Your task to perform on an android device: uninstall "Messenger Lite" Image 0: 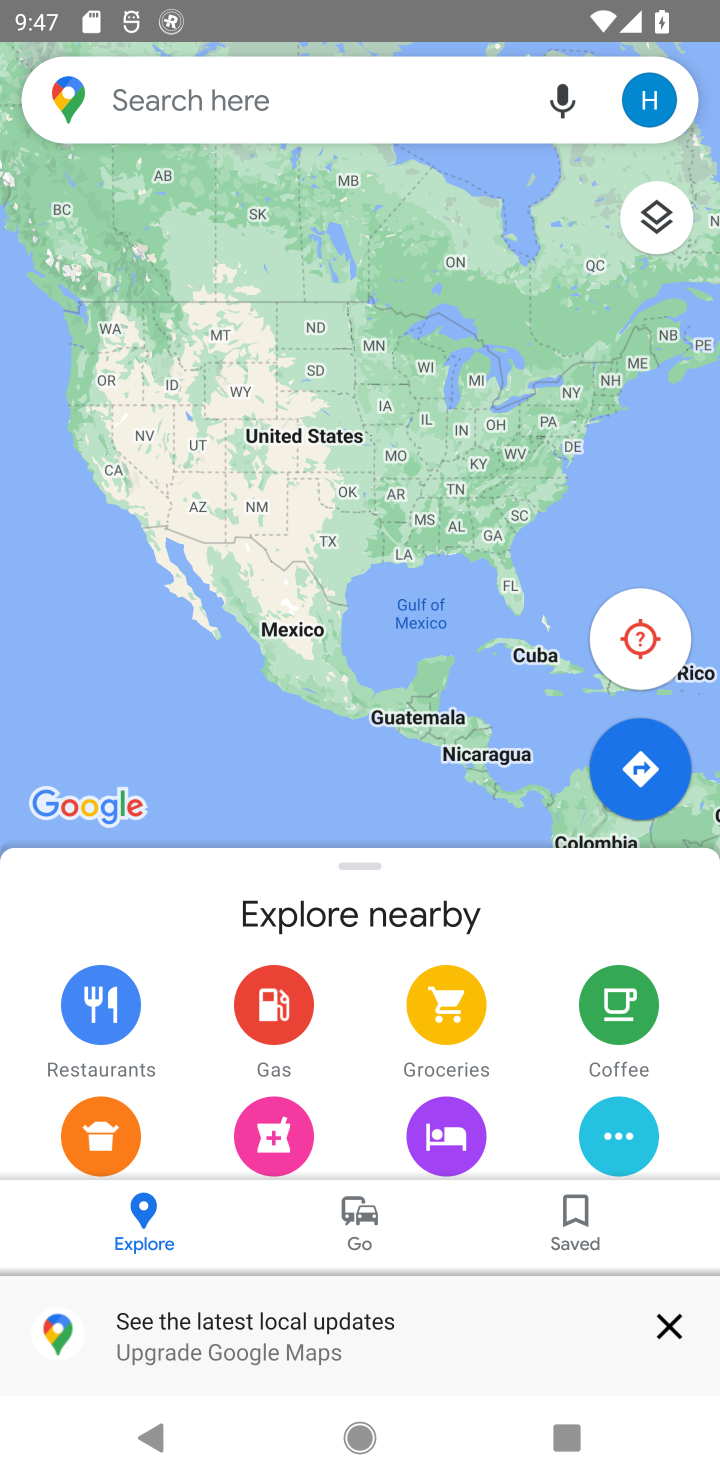
Step 0: press home button
Your task to perform on an android device: uninstall "Messenger Lite" Image 1: 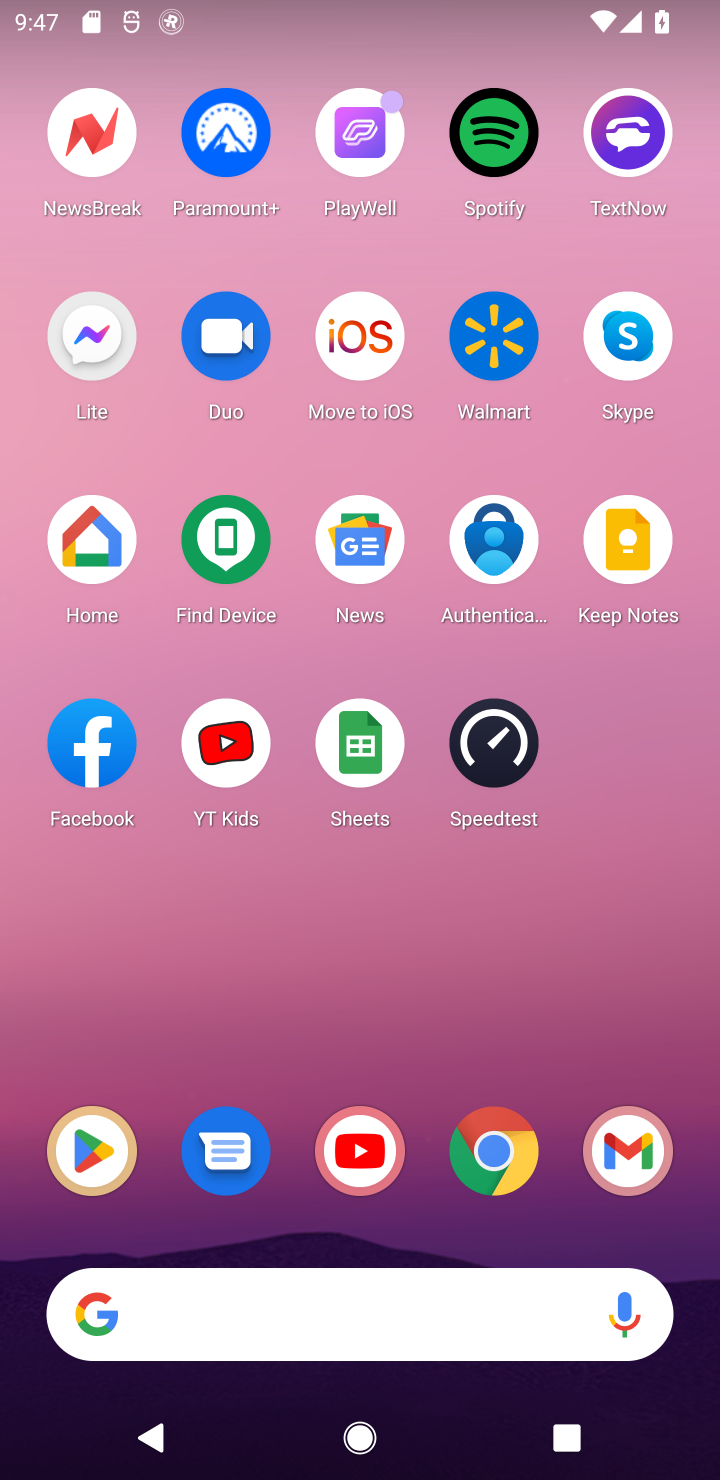
Step 1: click (3, 1144)
Your task to perform on an android device: uninstall "Messenger Lite" Image 2: 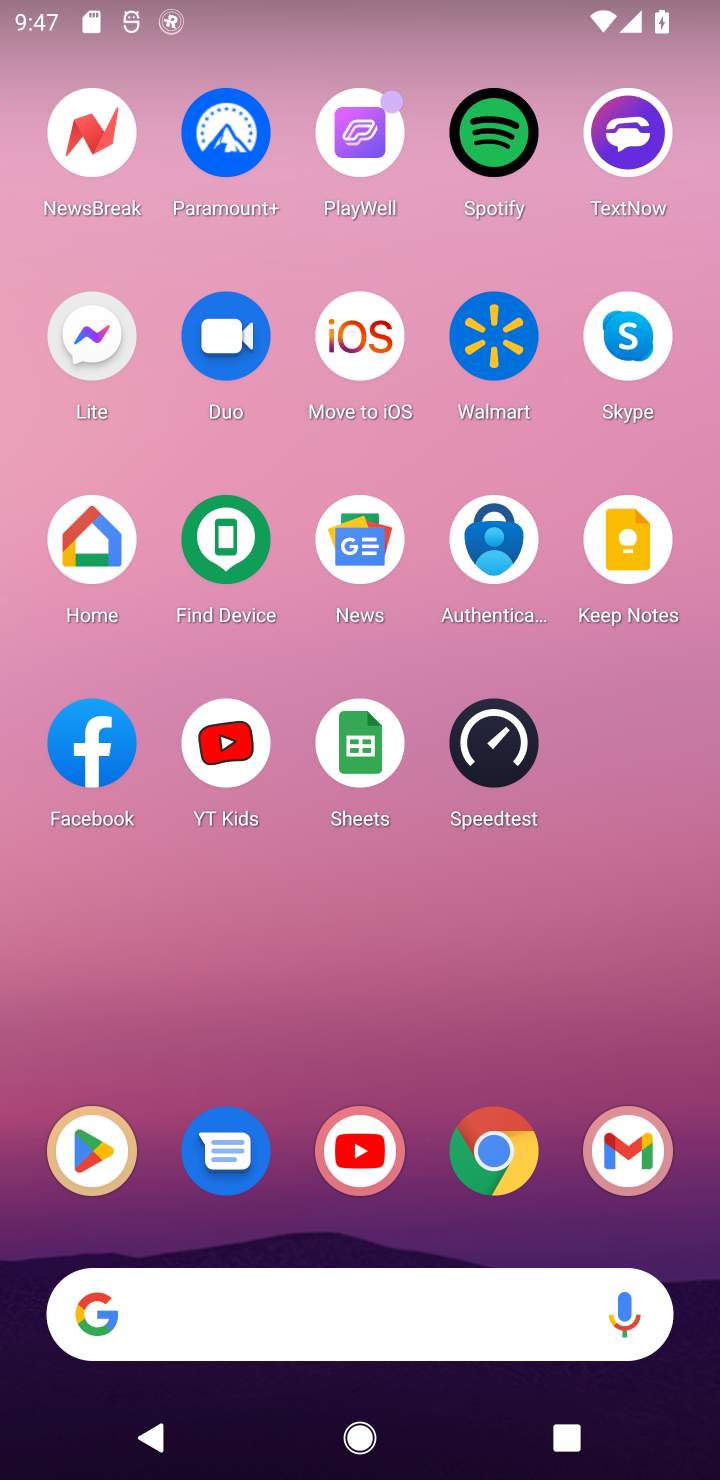
Step 2: click (73, 1159)
Your task to perform on an android device: uninstall "Messenger Lite" Image 3: 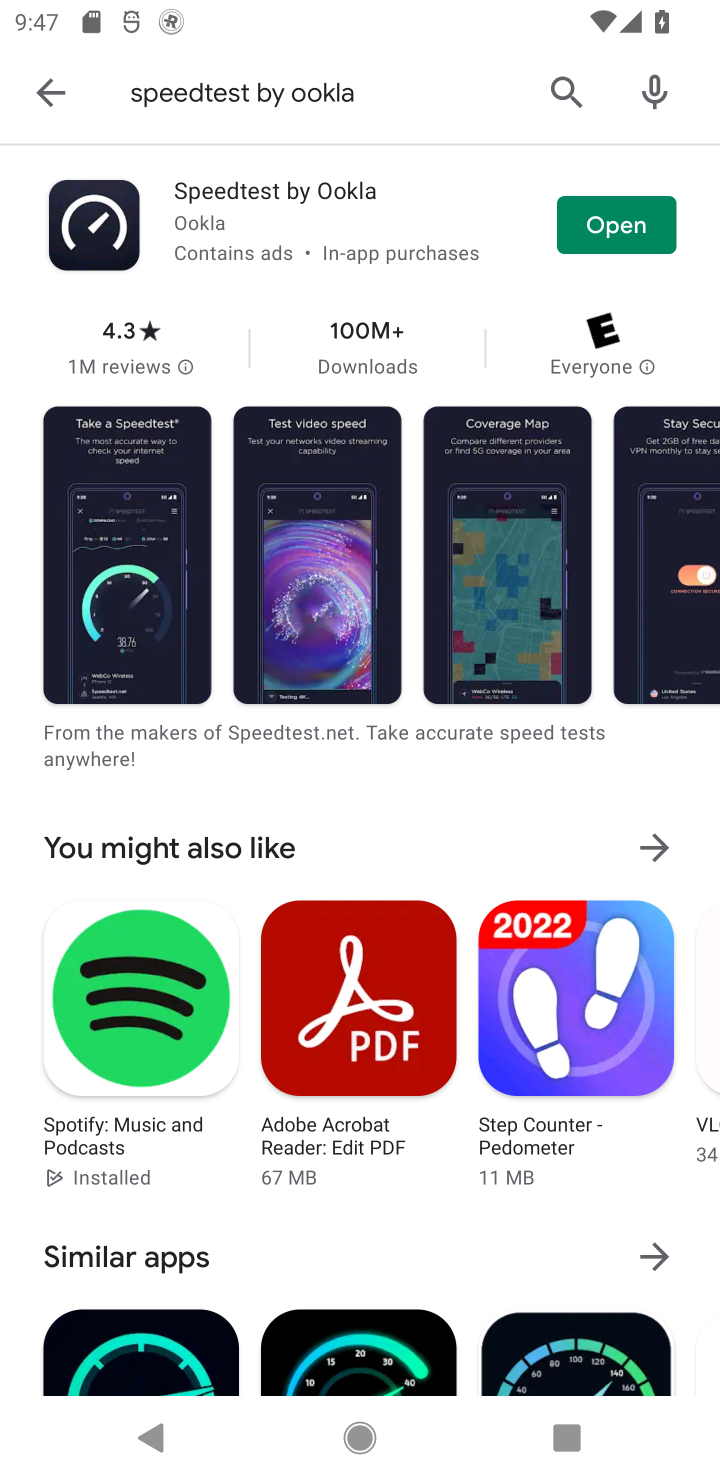
Step 3: click (541, 100)
Your task to perform on an android device: uninstall "Messenger Lite" Image 4: 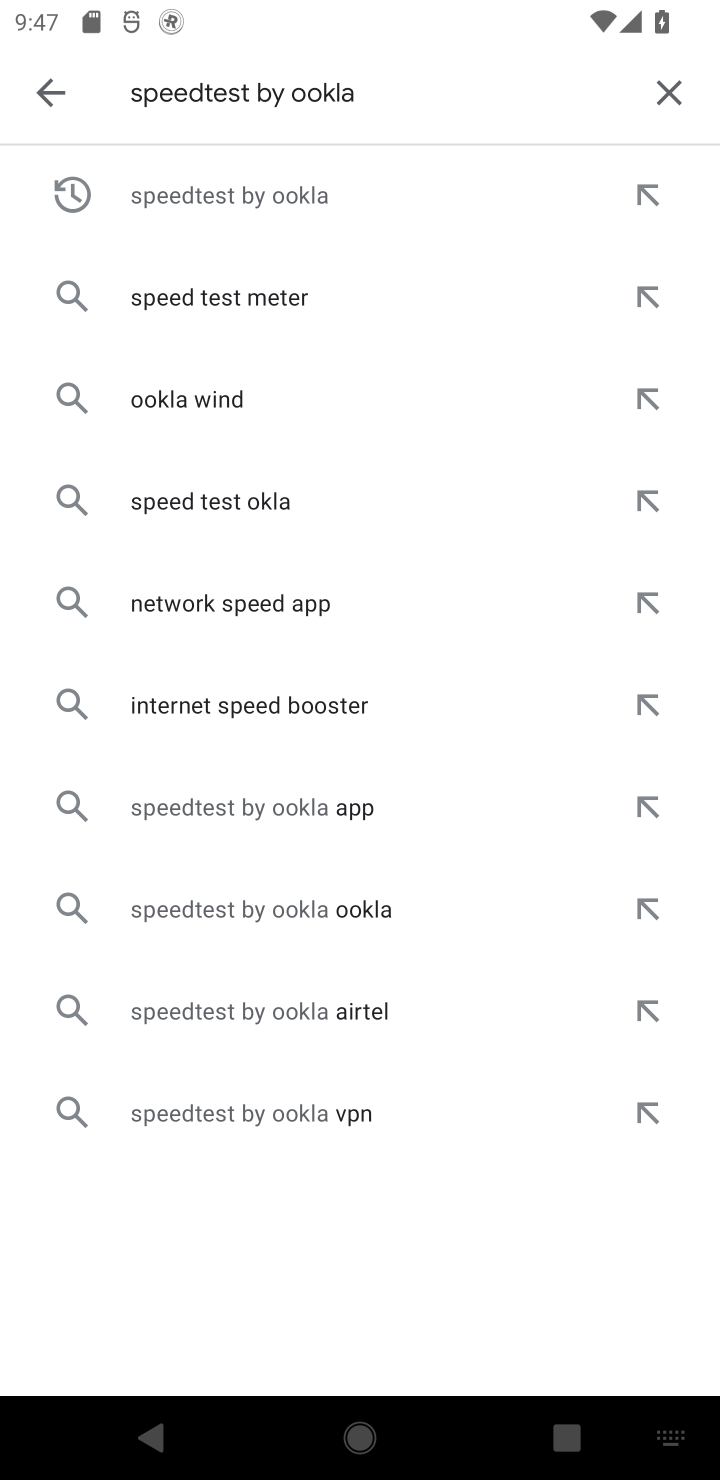
Step 4: click (662, 91)
Your task to perform on an android device: uninstall "Messenger Lite" Image 5: 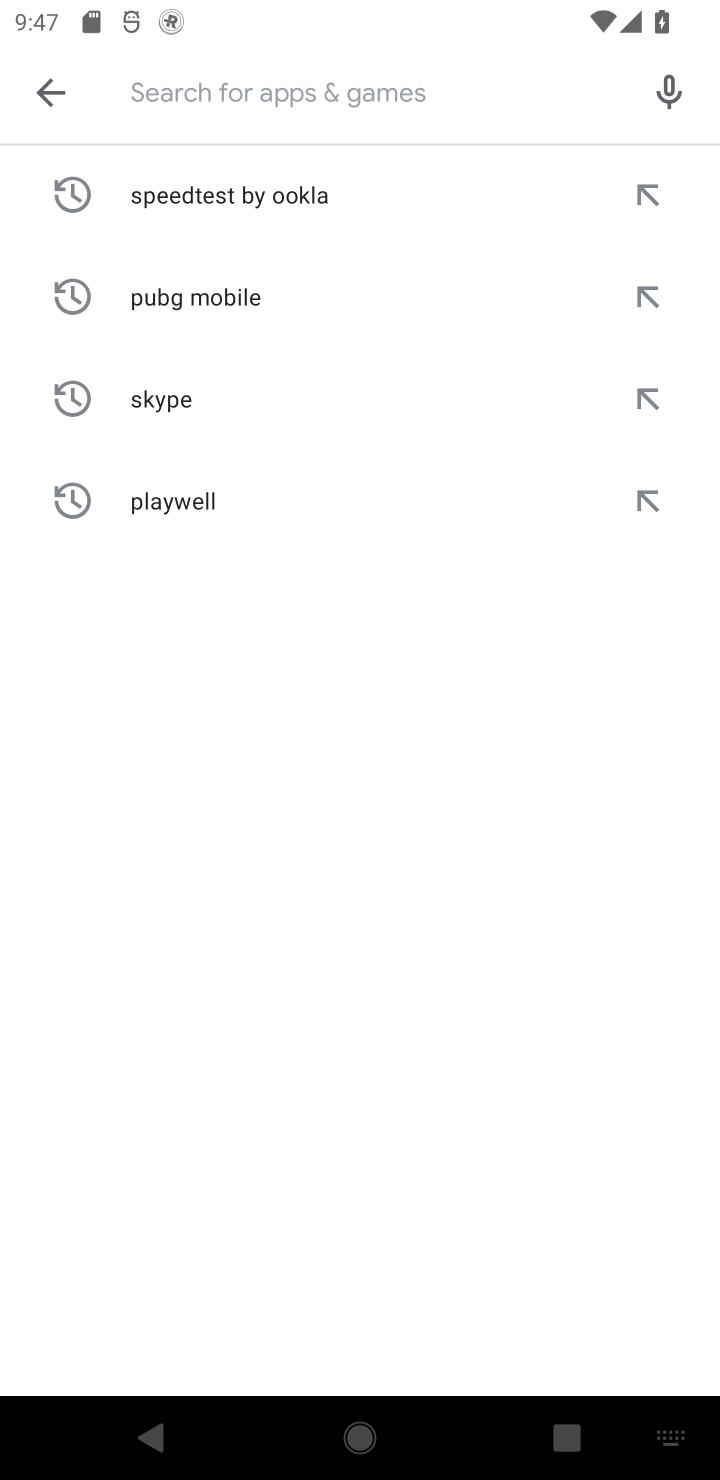
Step 5: type "Messenger Lite"
Your task to perform on an android device: uninstall "Messenger Lite" Image 6: 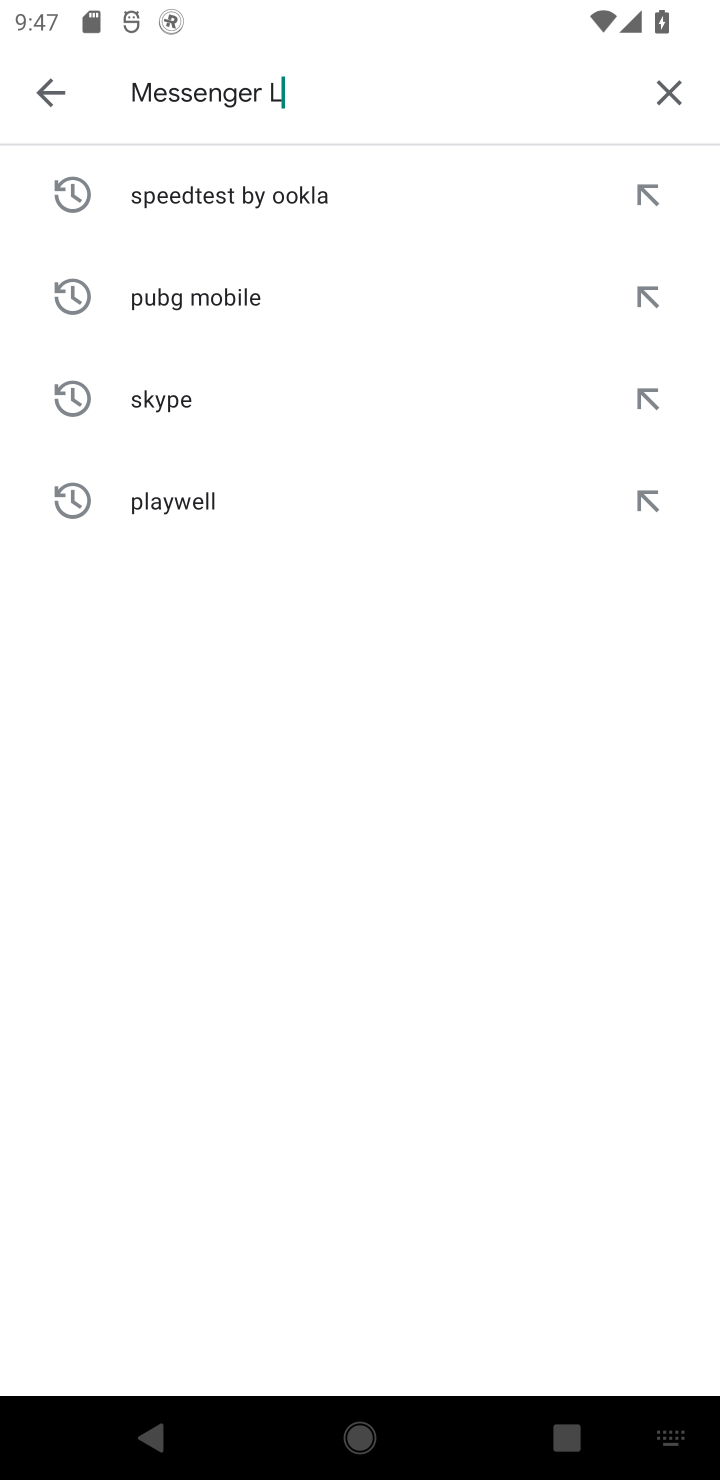
Step 6: type ""
Your task to perform on an android device: uninstall "Messenger Lite" Image 7: 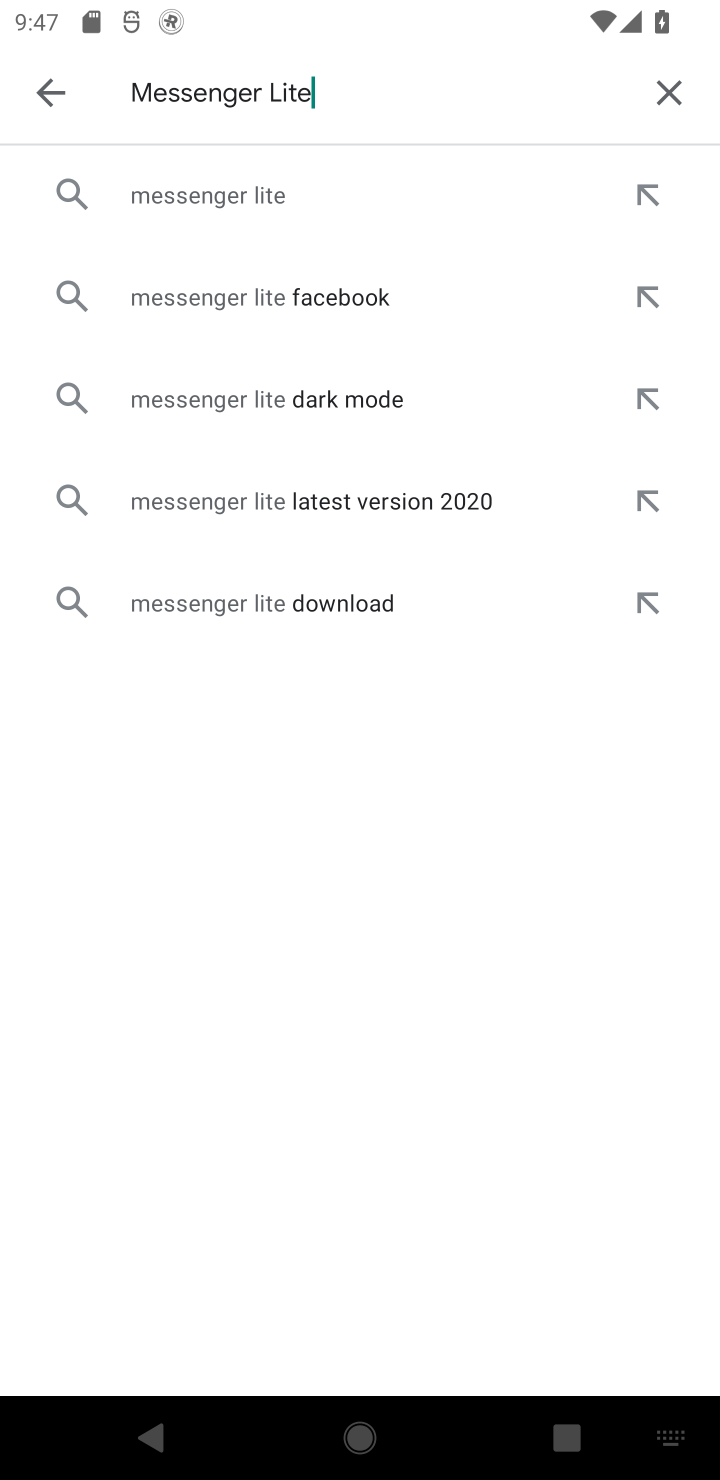
Step 7: click (321, 197)
Your task to perform on an android device: uninstall "Messenger Lite" Image 8: 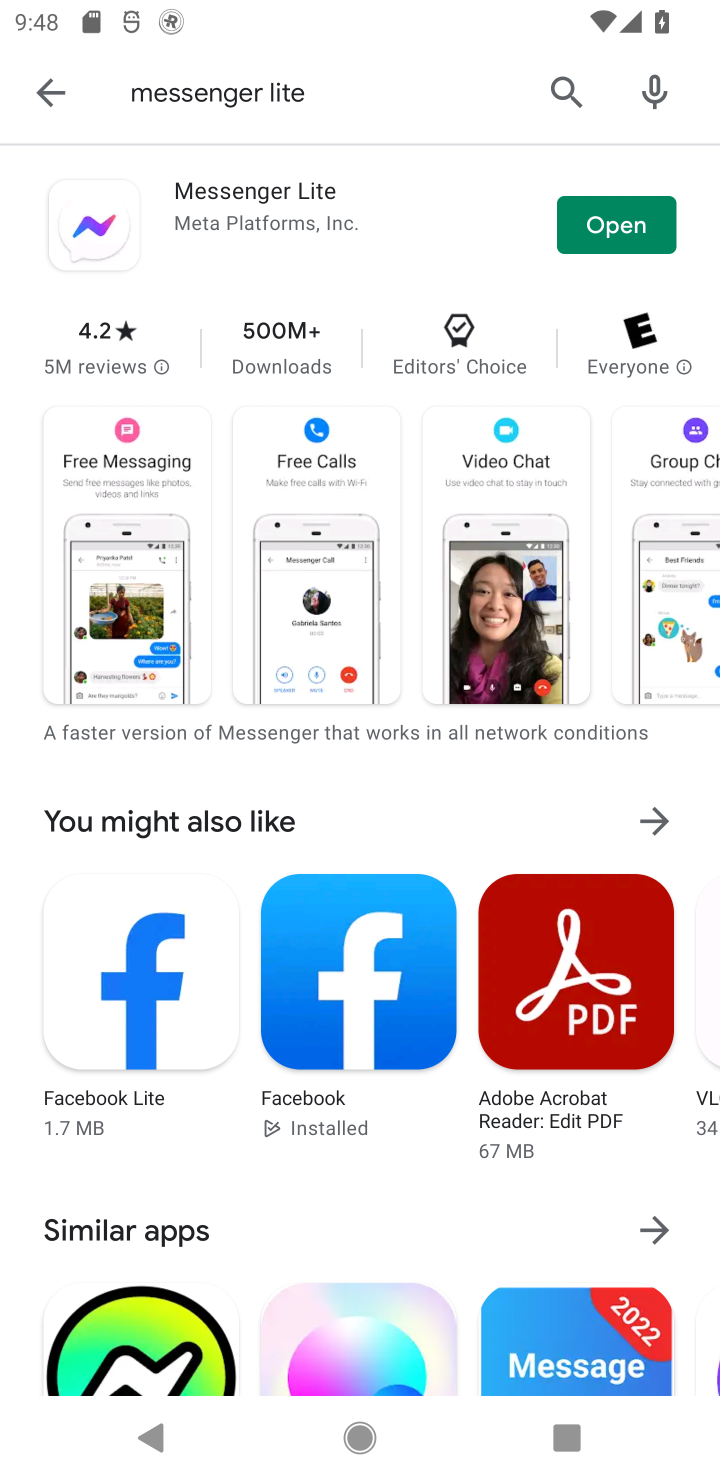
Step 8: task complete